Your task to perform on an android device: turn off priority inbox in the gmail app Image 0: 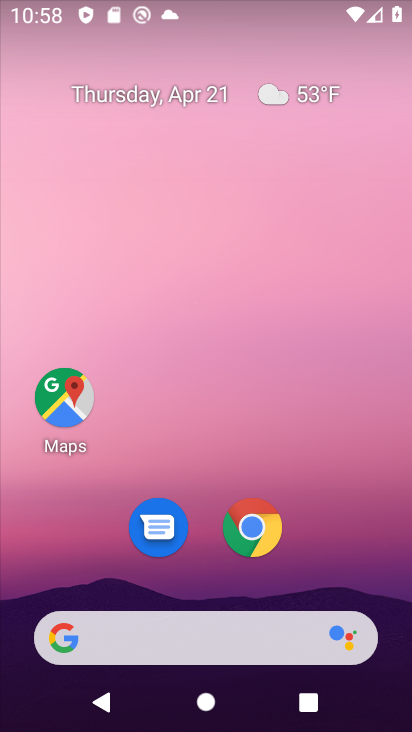
Step 0: drag from (351, 565) to (348, 189)
Your task to perform on an android device: turn off priority inbox in the gmail app Image 1: 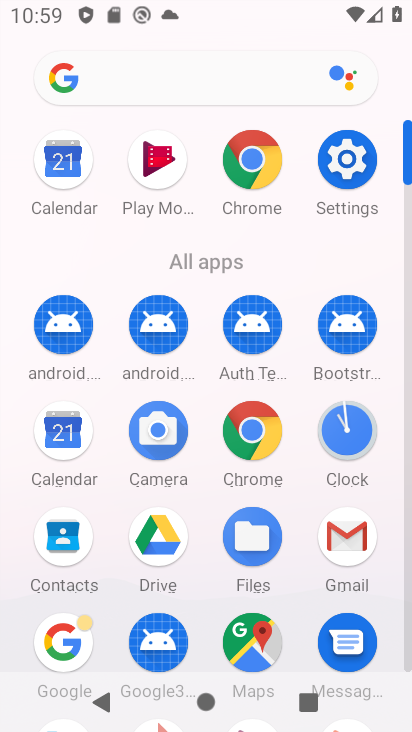
Step 1: click (346, 544)
Your task to perform on an android device: turn off priority inbox in the gmail app Image 2: 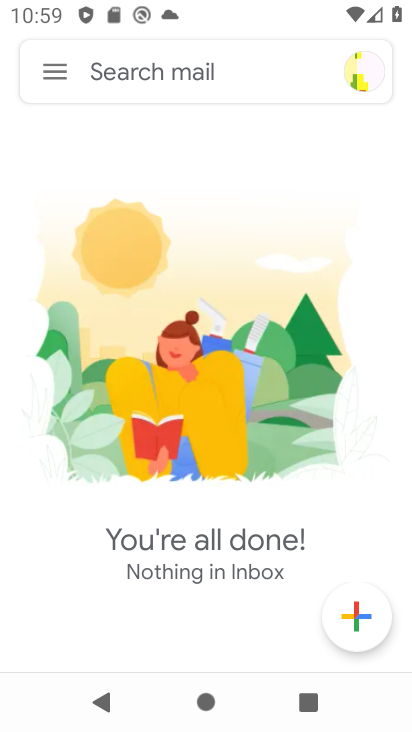
Step 2: click (51, 65)
Your task to perform on an android device: turn off priority inbox in the gmail app Image 3: 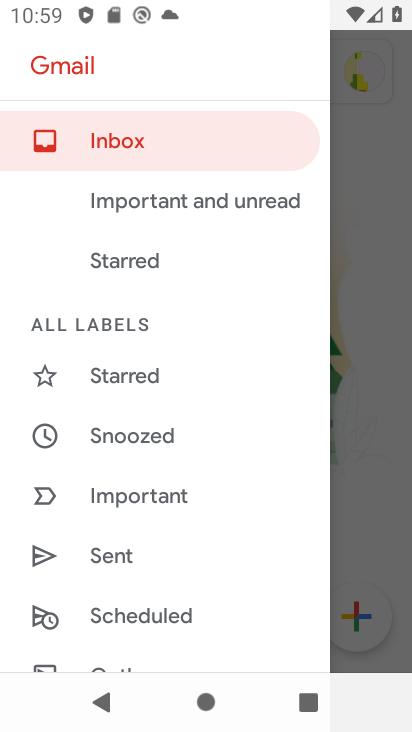
Step 3: drag from (268, 513) to (266, 367)
Your task to perform on an android device: turn off priority inbox in the gmail app Image 4: 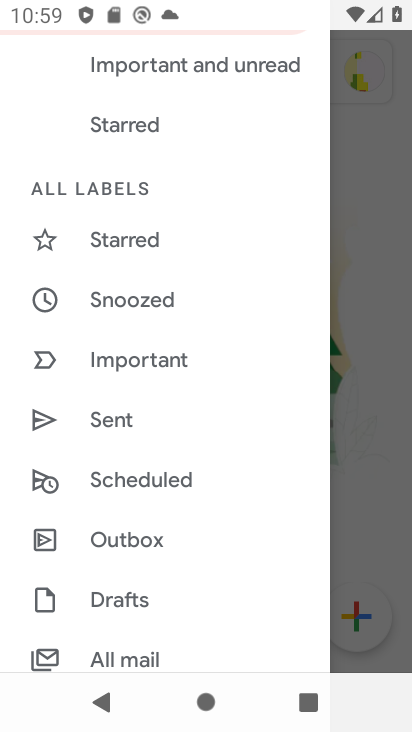
Step 4: drag from (260, 540) to (258, 392)
Your task to perform on an android device: turn off priority inbox in the gmail app Image 5: 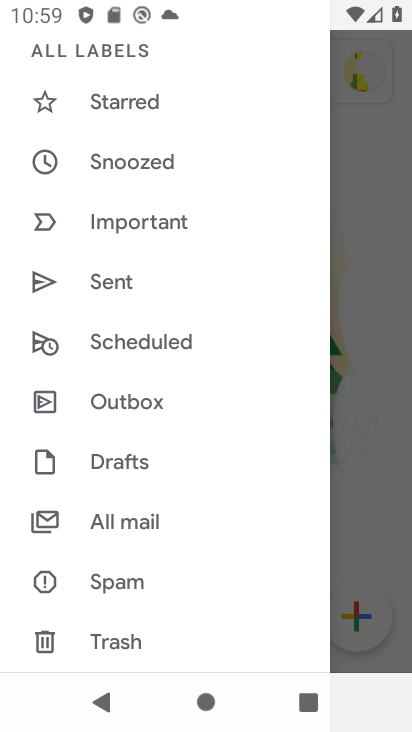
Step 5: drag from (258, 556) to (268, 413)
Your task to perform on an android device: turn off priority inbox in the gmail app Image 6: 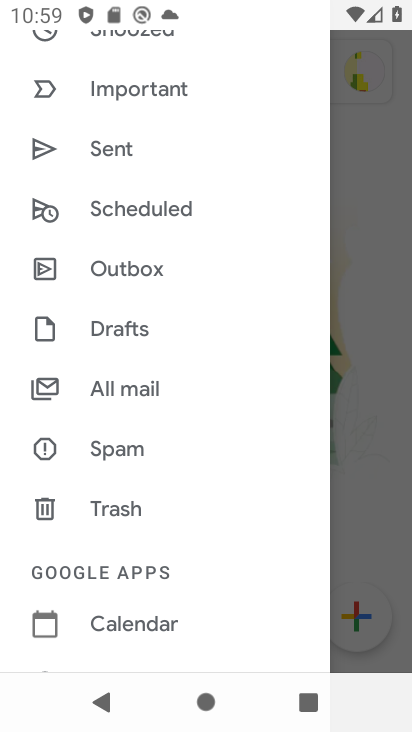
Step 6: drag from (254, 593) to (266, 445)
Your task to perform on an android device: turn off priority inbox in the gmail app Image 7: 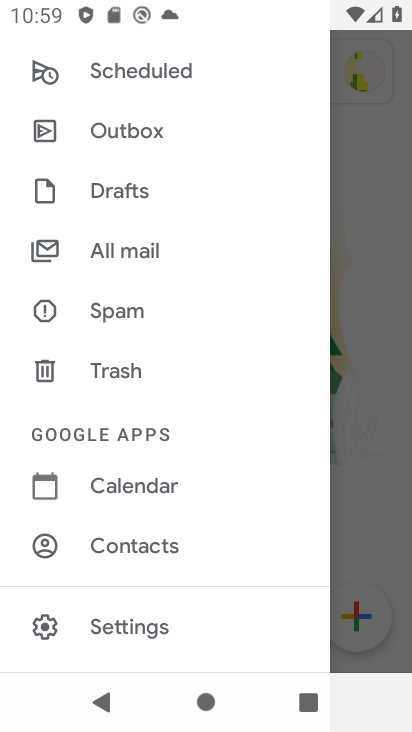
Step 7: drag from (284, 570) to (281, 485)
Your task to perform on an android device: turn off priority inbox in the gmail app Image 8: 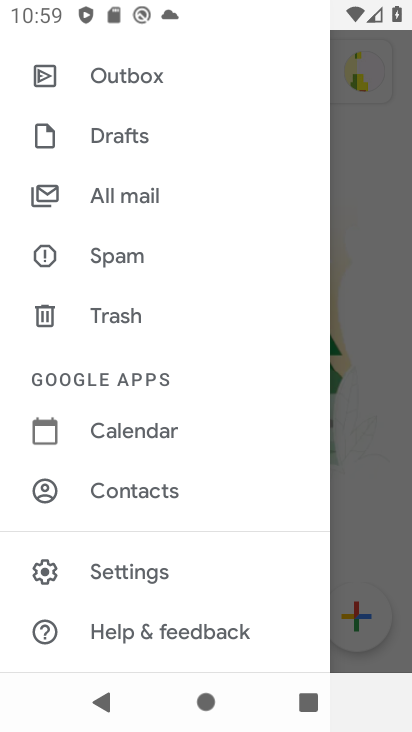
Step 8: click (188, 566)
Your task to perform on an android device: turn off priority inbox in the gmail app Image 9: 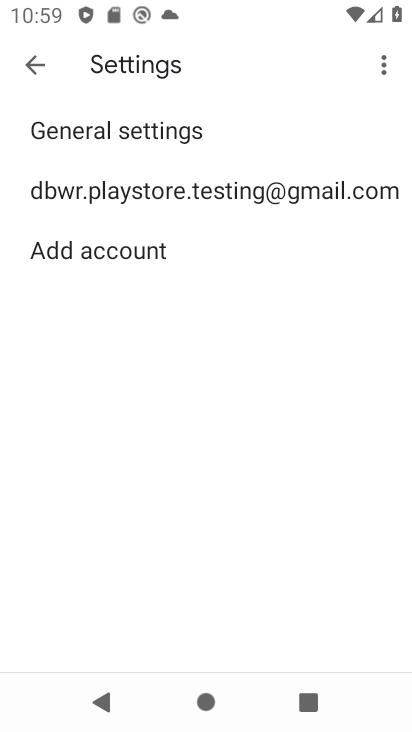
Step 9: click (227, 202)
Your task to perform on an android device: turn off priority inbox in the gmail app Image 10: 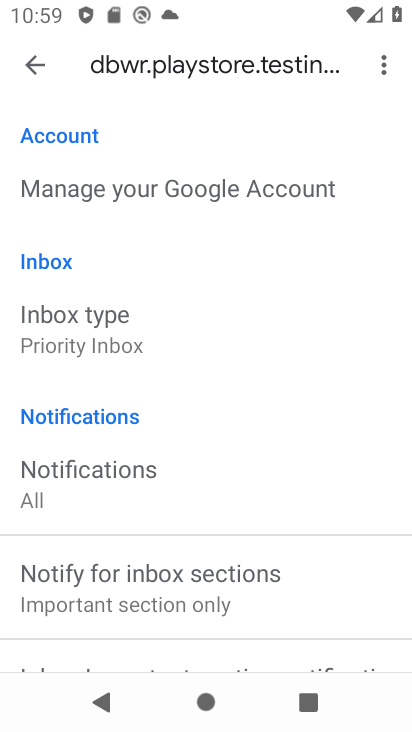
Step 10: drag from (332, 551) to (321, 357)
Your task to perform on an android device: turn off priority inbox in the gmail app Image 11: 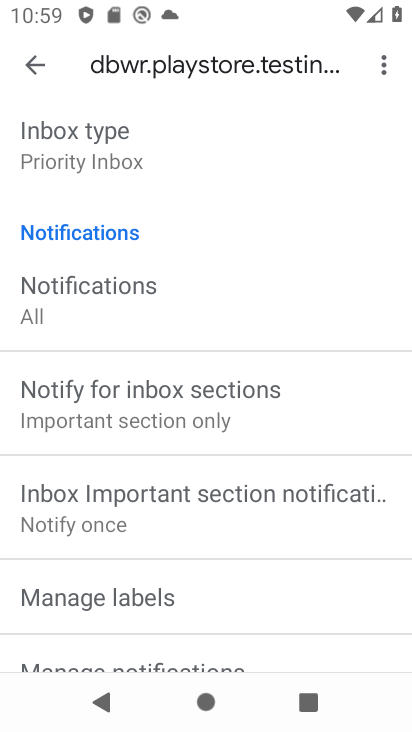
Step 11: drag from (356, 590) to (334, 369)
Your task to perform on an android device: turn off priority inbox in the gmail app Image 12: 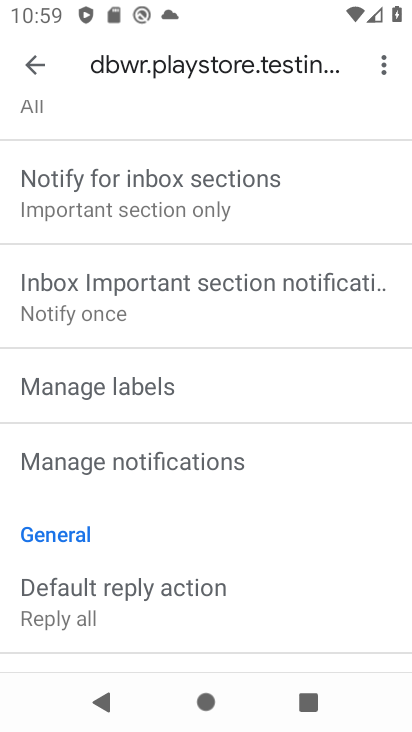
Step 12: drag from (329, 200) to (330, 415)
Your task to perform on an android device: turn off priority inbox in the gmail app Image 13: 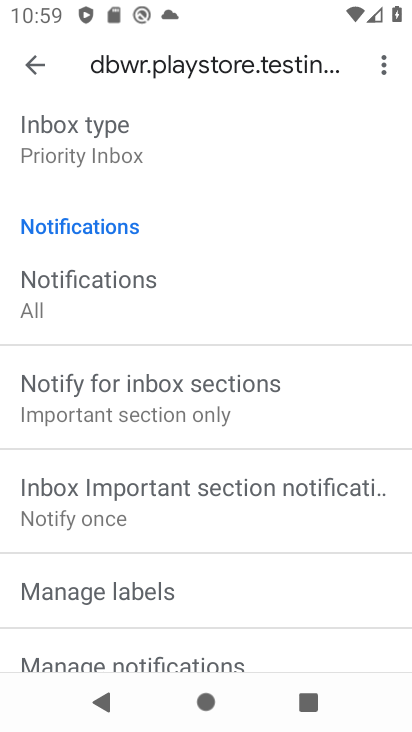
Step 13: click (115, 121)
Your task to perform on an android device: turn off priority inbox in the gmail app Image 14: 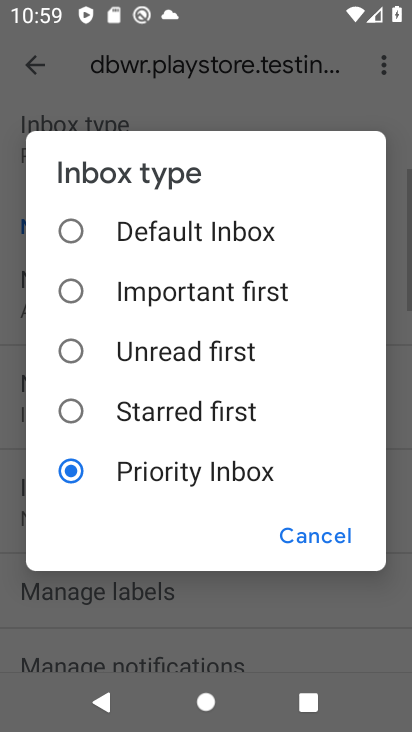
Step 14: click (253, 252)
Your task to perform on an android device: turn off priority inbox in the gmail app Image 15: 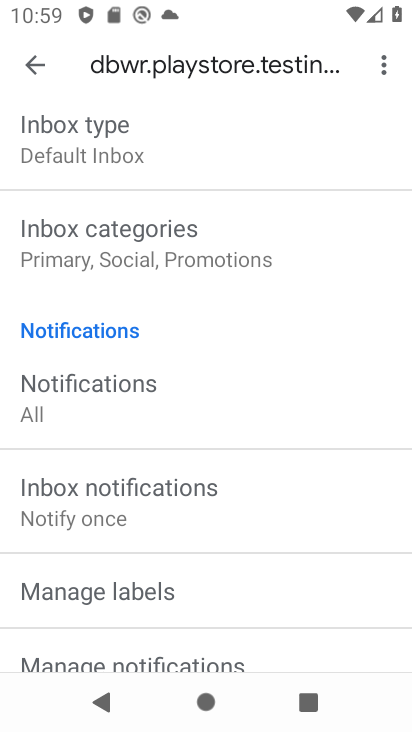
Step 15: task complete